Your task to perform on an android device: turn on airplane mode Image 0: 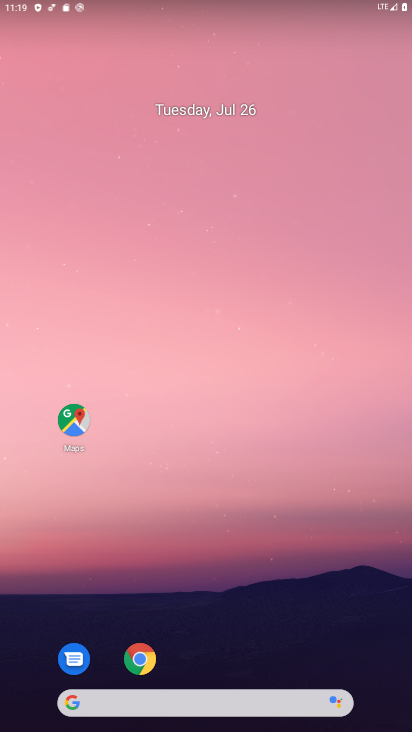
Step 0: press home button
Your task to perform on an android device: turn on airplane mode Image 1: 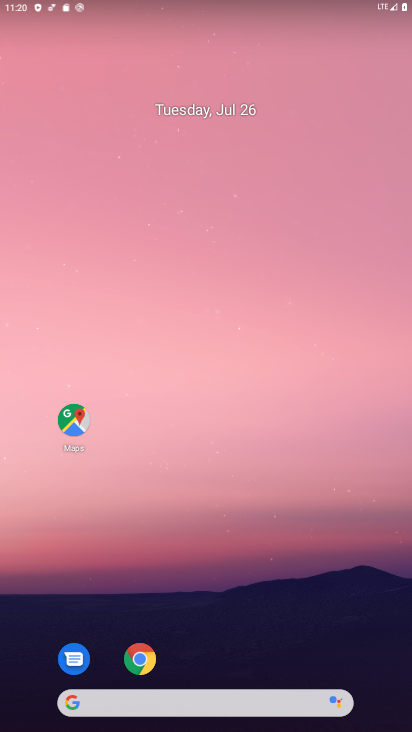
Step 1: drag from (46, 688) to (302, 216)
Your task to perform on an android device: turn on airplane mode Image 2: 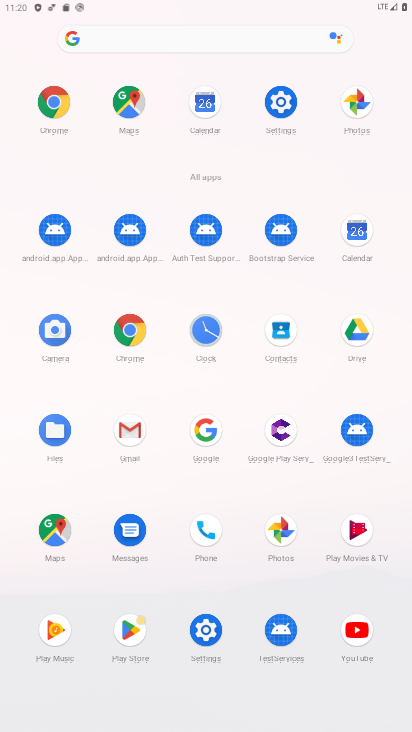
Step 2: click (277, 95)
Your task to perform on an android device: turn on airplane mode Image 3: 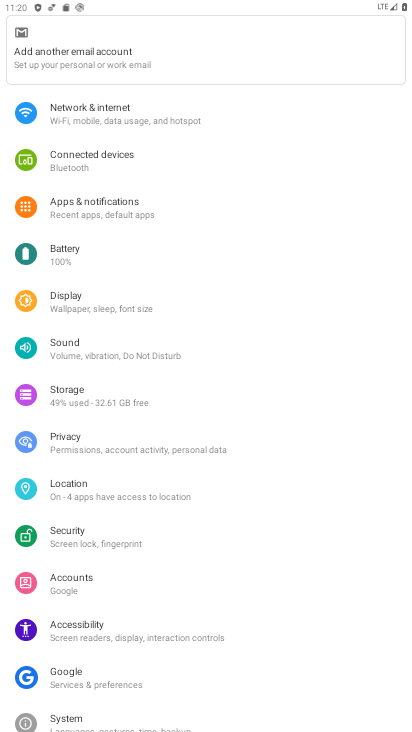
Step 3: click (160, 115)
Your task to perform on an android device: turn on airplane mode Image 4: 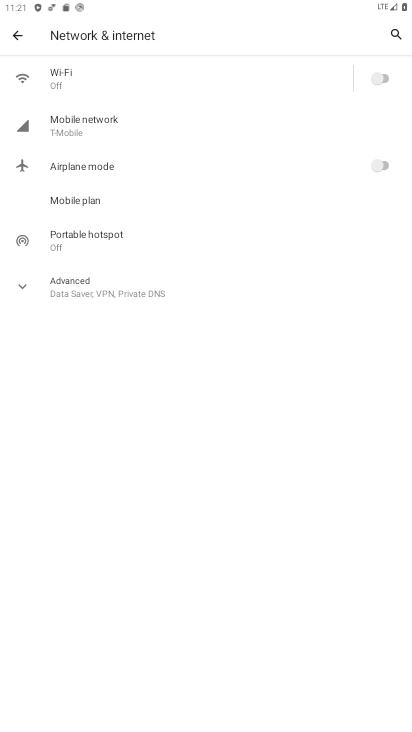
Step 4: task complete